Your task to perform on an android device: check battery use Image 0: 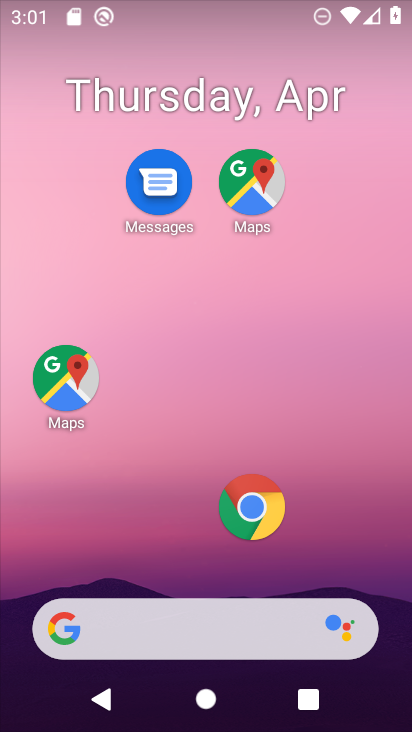
Step 0: drag from (171, 544) to (246, 52)
Your task to perform on an android device: check battery use Image 1: 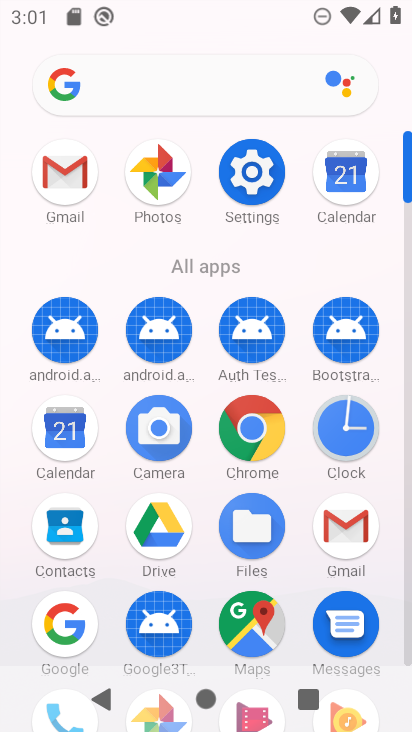
Step 1: click (262, 196)
Your task to perform on an android device: check battery use Image 2: 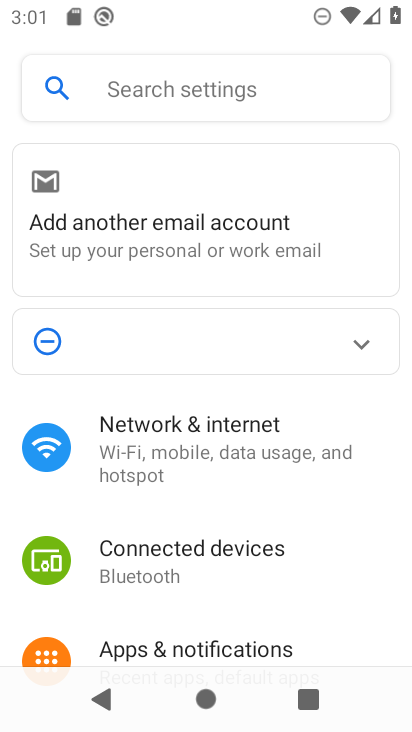
Step 2: drag from (182, 565) to (275, 259)
Your task to perform on an android device: check battery use Image 3: 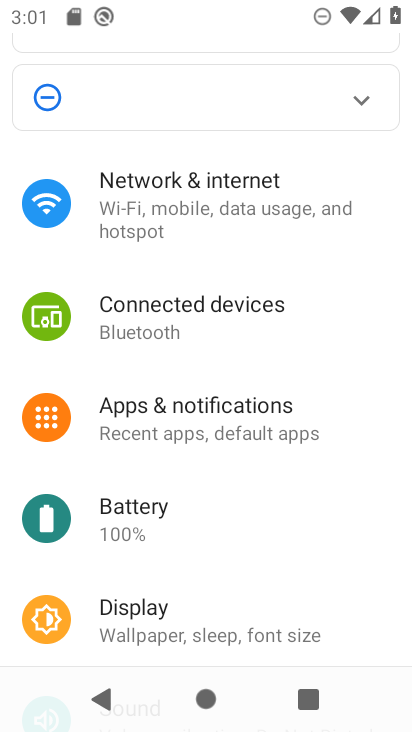
Step 3: click (172, 519)
Your task to perform on an android device: check battery use Image 4: 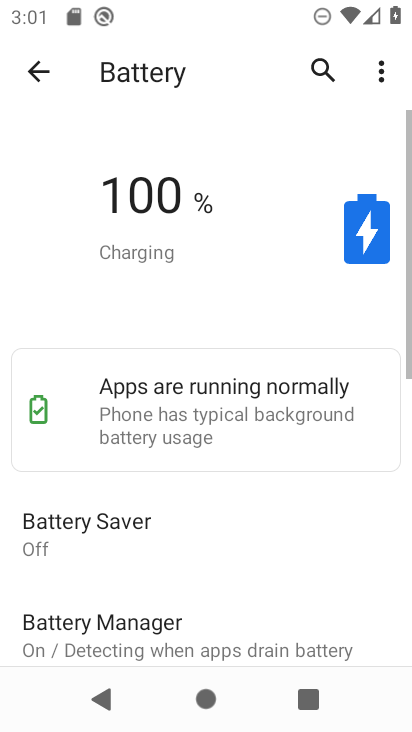
Step 4: click (376, 80)
Your task to perform on an android device: check battery use Image 5: 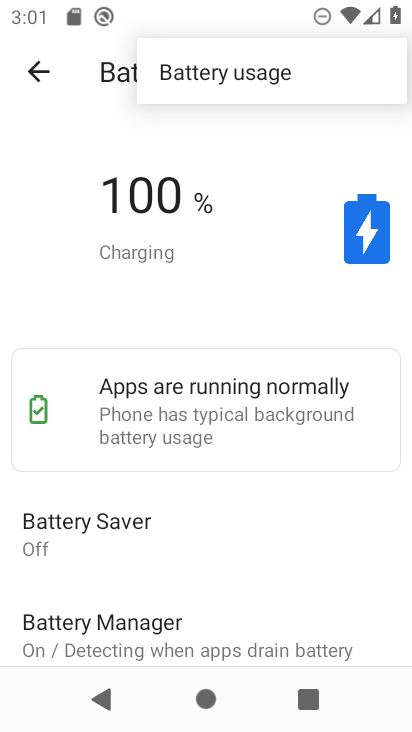
Step 5: click (208, 73)
Your task to perform on an android device: check battery use Image 6: 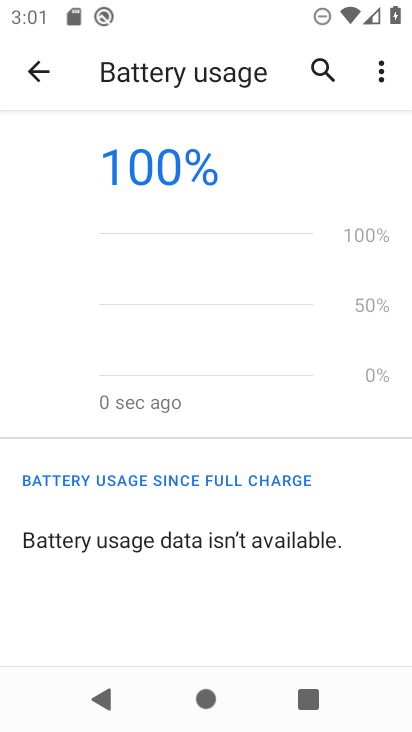
Step 6: task complete